Your task to perform on an android device: Open the phone app and click the voicemail tab. Image 0: 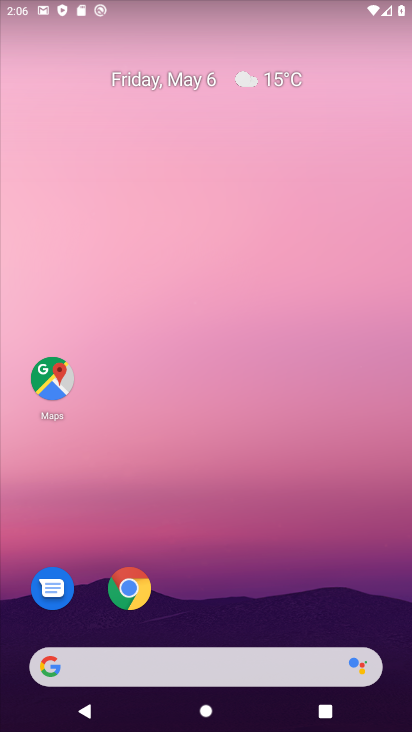
Step 0: drag from (237, 643) to (207, 175)
Your task to perform on an android device: Open the phone app and click the voicemail tab. Image 1: 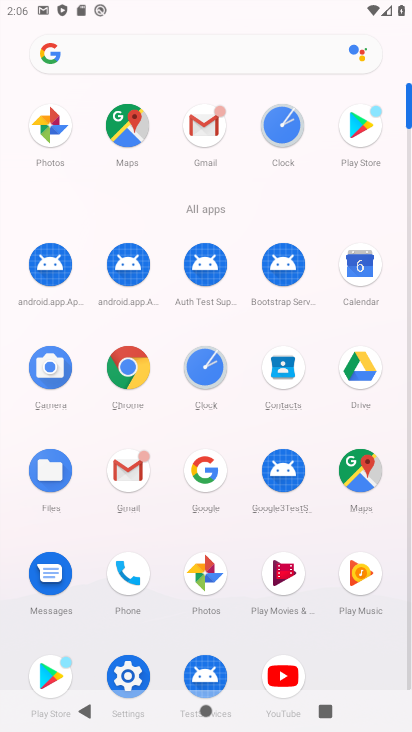
Step 1: click (124, 571)
Your task to perform on an android device: Open the phone app and click the voicemail tab. Image 2: 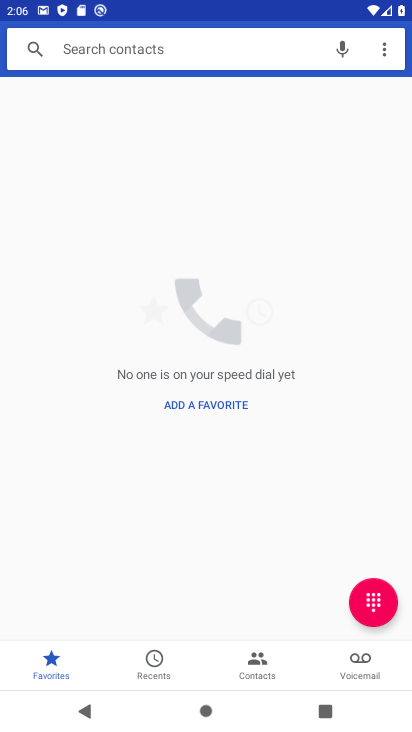
Step 2: click (361, 676)
Your task to perform on an android device: Open the phone app and click the voicemail tab. Image 3: 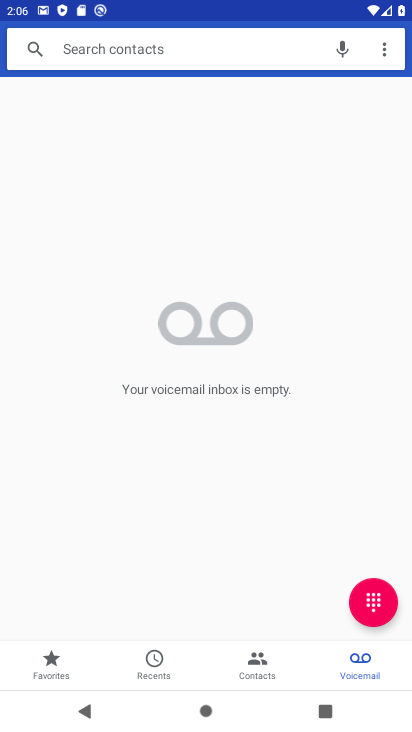
Step 3: task complete